Your task to perform on an android device: open app "DuckDuckGo Privacy Browser" (install if not already installed), go to login, and select forgot password Image 0: 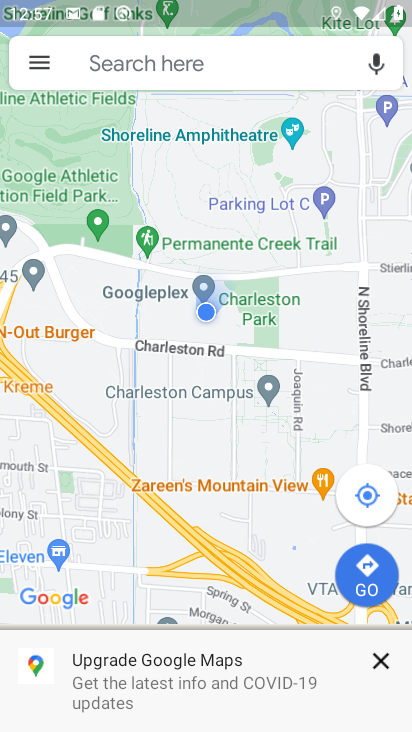
Step 0: press home button
Your task to perform on an android device: open app "DuckDuckGo Privacy Browser" (install if not already installed), go to login, and select forgot password Image 1: 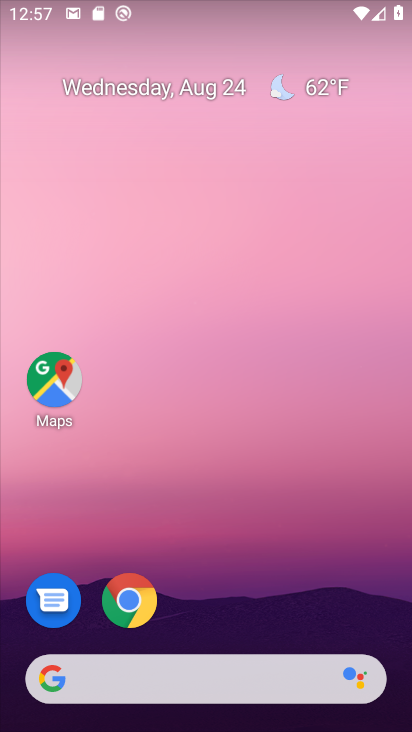
Step 1: drag from (225, 632) to (207, 246)
Your task to perform on an android device: open app "DuckDuckGo Privacy Browser" (install if not already installed), go to login, and select forgot password Image 2: 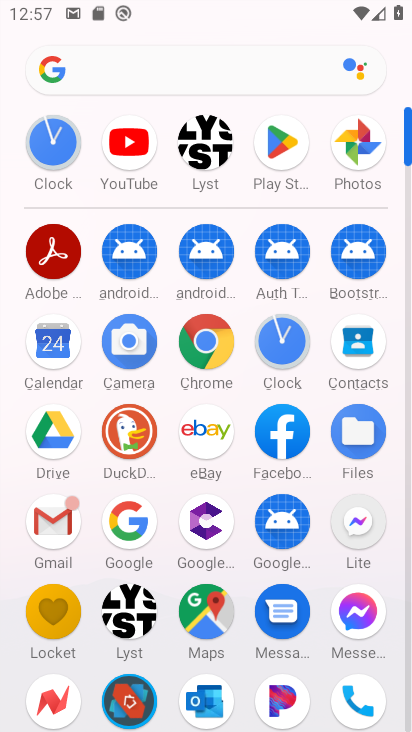
Step 2: click (286, 208)
Your task to perform on an android device: open app "DuckDuckGo Privacy Browser" (install if not already installed), go to login, and select forgot password Image 3: 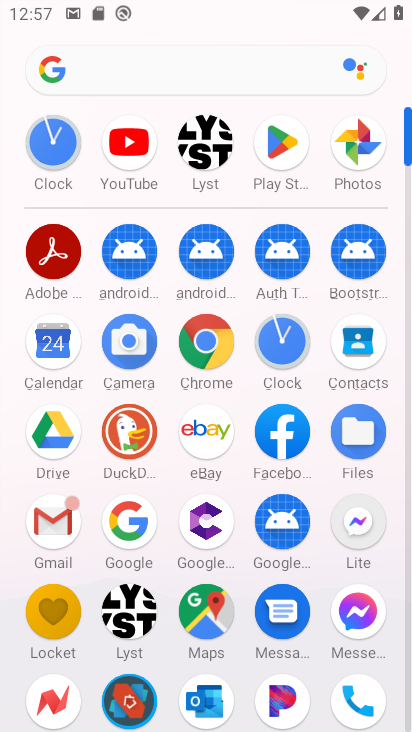
Step 3: click (291, 155)
Your task to perform on an android device: open app "DuckDuckGo Privacy Browser" (install if not already installed), go to login, and select forgot password Image 4: 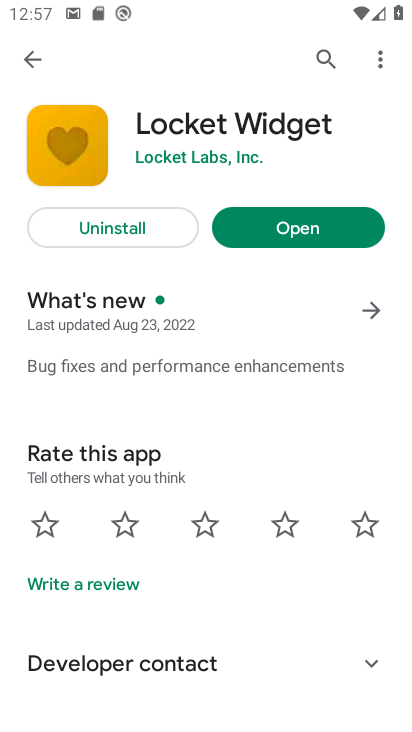
Step 4: click (332, 44)
Your task to perform on an android device: open app "DuckDuckGo Privacy Browser" (install if not already installed), go to login, and select forgot password Image 5: 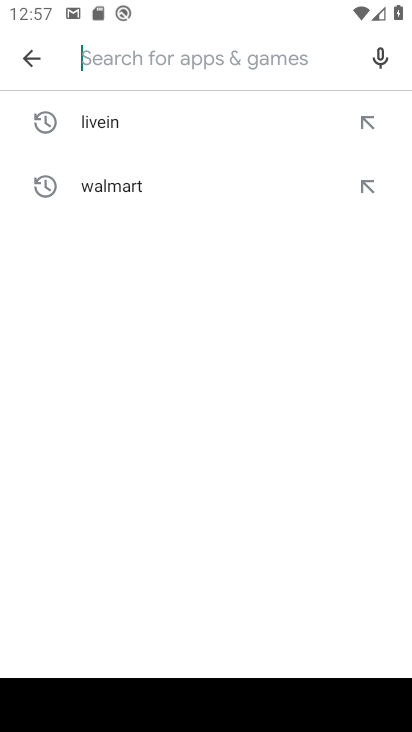
Step 5: type "duck duck go"
Your task to perform on an android device: open app "DuckDuckGo Privacy Browser" (install if not already installed), go to login, and select forgot password Image 6: 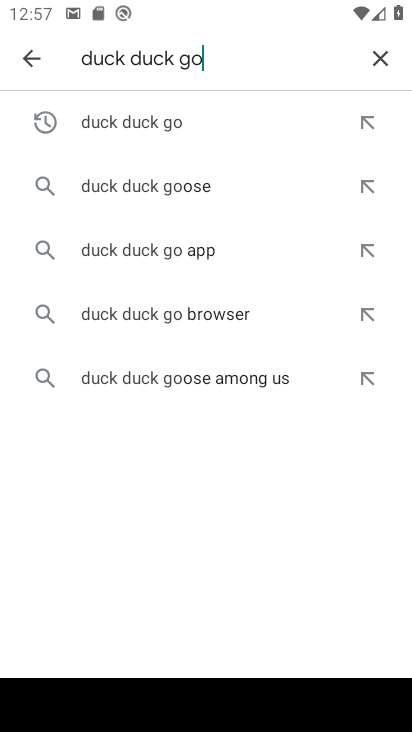
Step 6: click (158, 115)
Your task to perform on an android device: open app "DuckDuckGo Privacy Browser" (install if not already installed), go to login, and select forgot password Image 7: 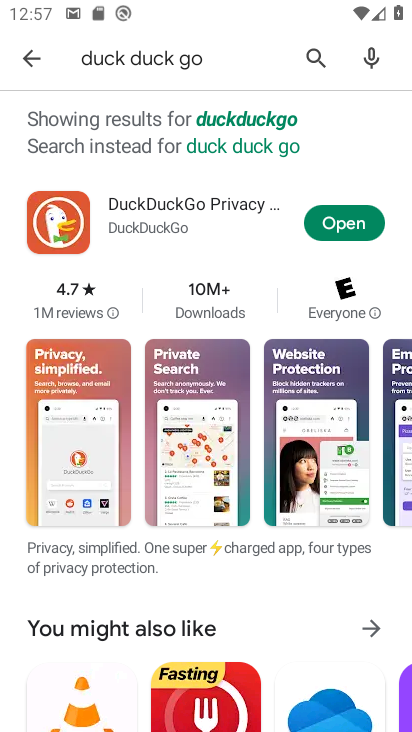
Step 7: click (334, 236)
Your task to perform on an android device: open app "DuckDuckGo Privacy Browser" (install if not already installed), go to login, and select forgot password Image 8: 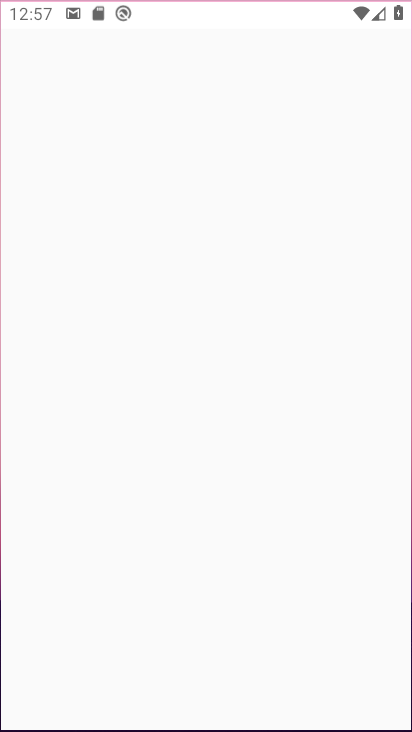
Step 8: task complete